Your task to perform on an android device: Go to ESPN.com Image 0: 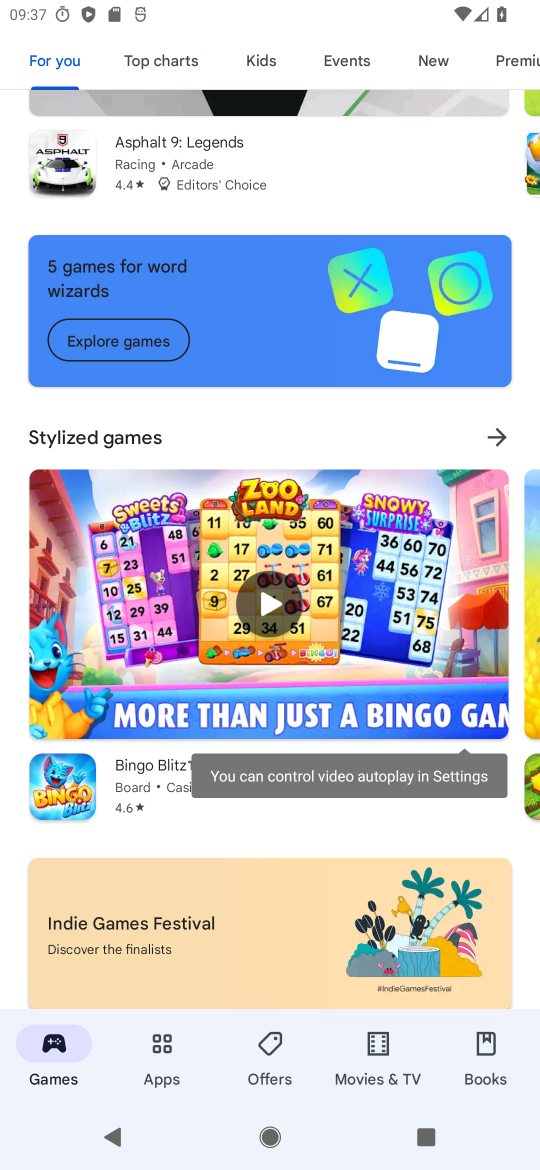
Step 0: press home button
Your task to perform on an android device: Go to ESPN.com Image 1: 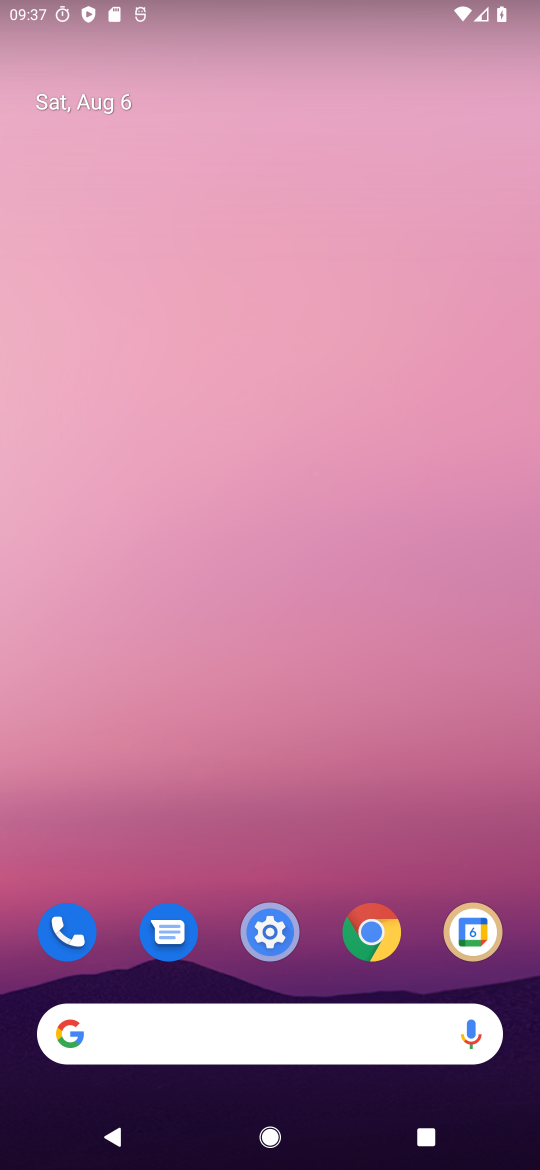
Step 1: click (372, 928)
Your task to perform on an android device: Go to ESPN.com Image 2: 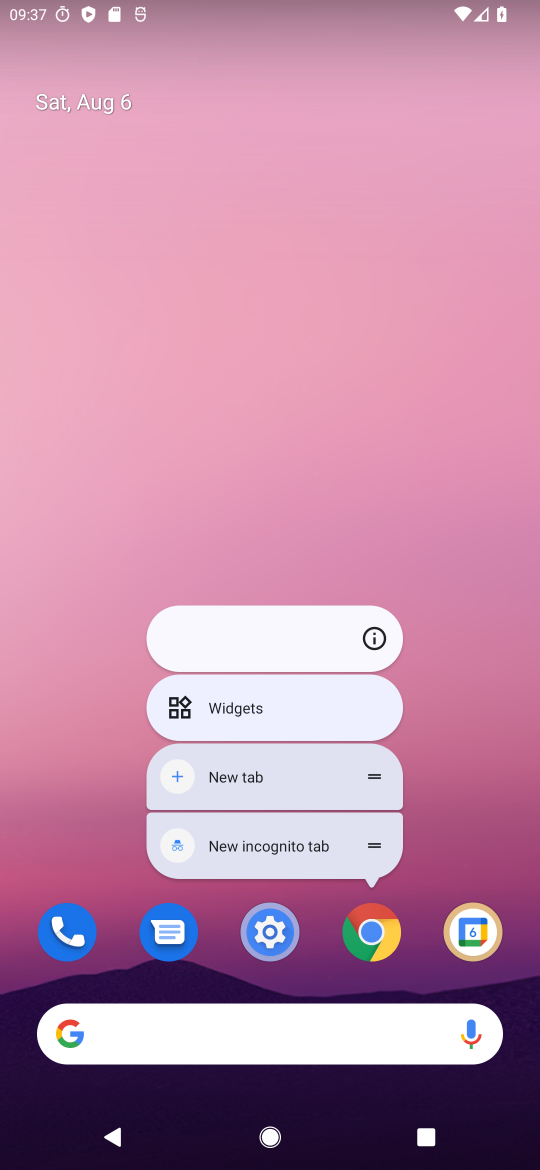
Step 2: click (372, 926)
Your task to perform on an android device: Go to ESPN.com Image 3: 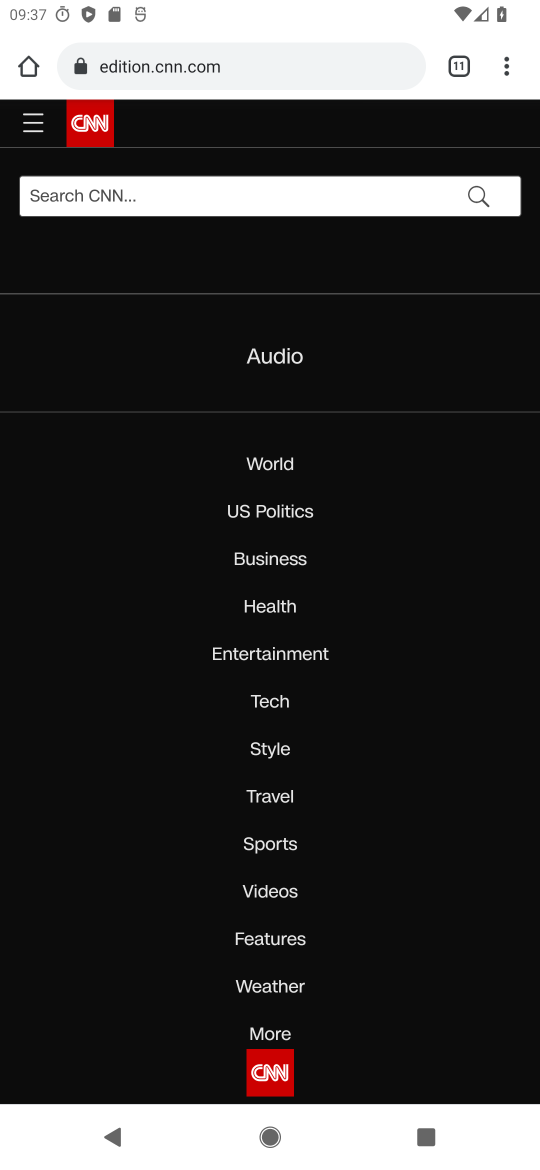
Step 3: drag from (501, 52) to (332, 193)
Your task to perform on an android device: Go to ESPN.com Image 4: 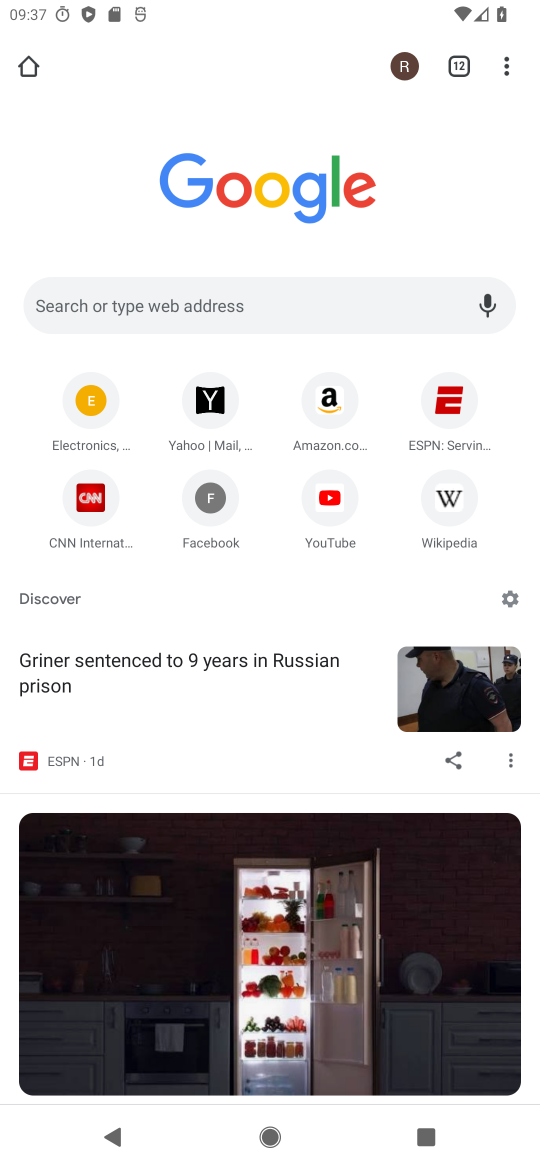
Step 4: click (447, 391)
Your task to perform on an android device: Go to ESPN.com Image 5: 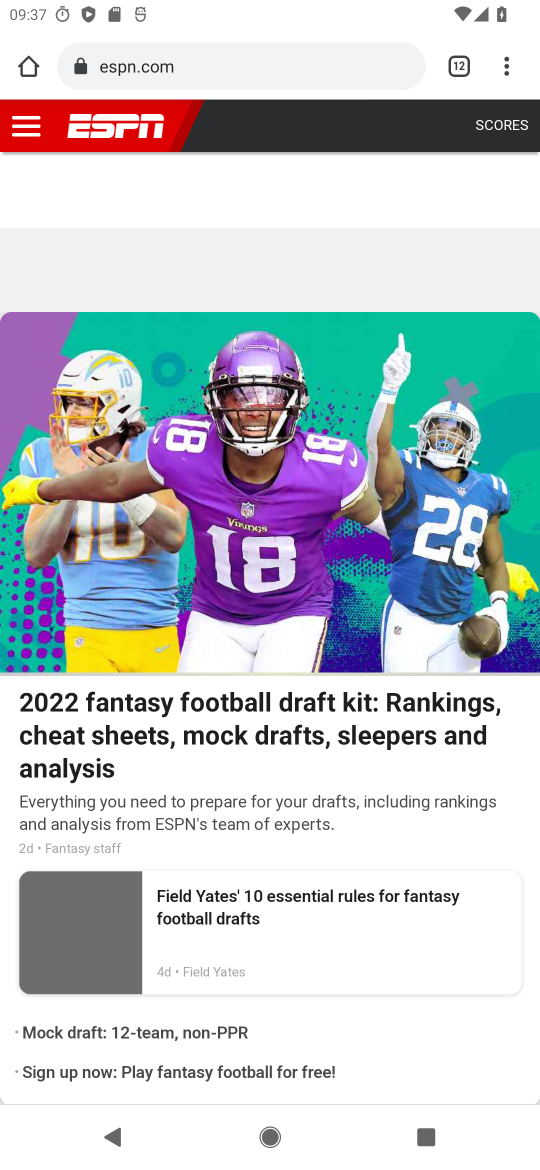
Step 5: task complete